Your task to perform on an android device: open a new tab in the chrome app Image 0: 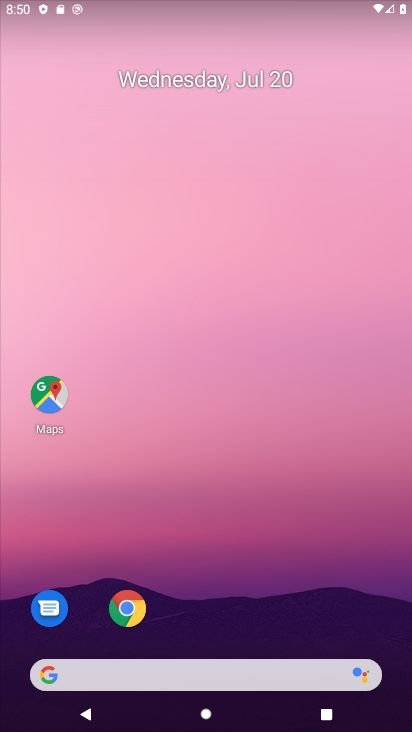
Step 0: click (221, 190)
Your task to perform on an android device: open a new tab in the chrome app Image 1: 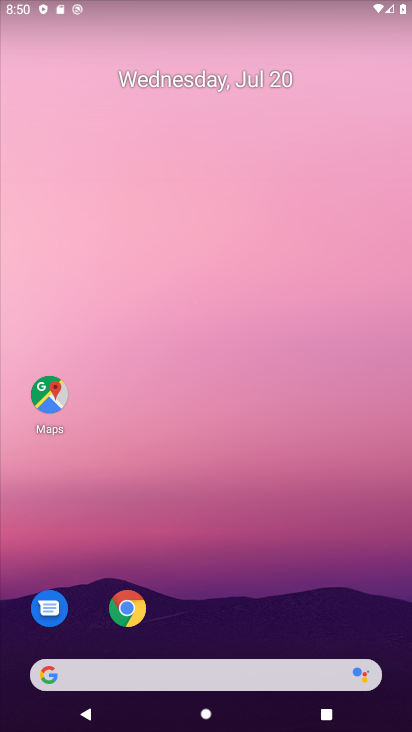
Step 1: drag from (180, 636) to (208, 150)
Your task to perform on an android device: open a new tab in the chrome app Image 2: 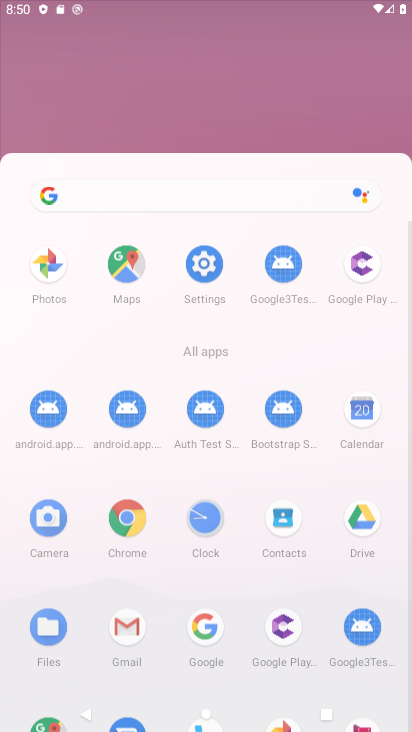
Step 2: drag from (194, 512) to (187, 127)
Your task to perform on an android device: open a new tab in the chrome app Image 3: 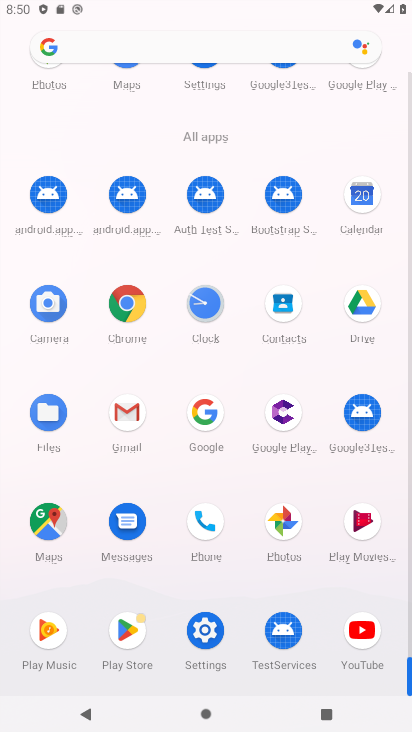
Step 3: click (135, 312)
Your task to perform on an android device: open a new tab in the chrome app Image 4: 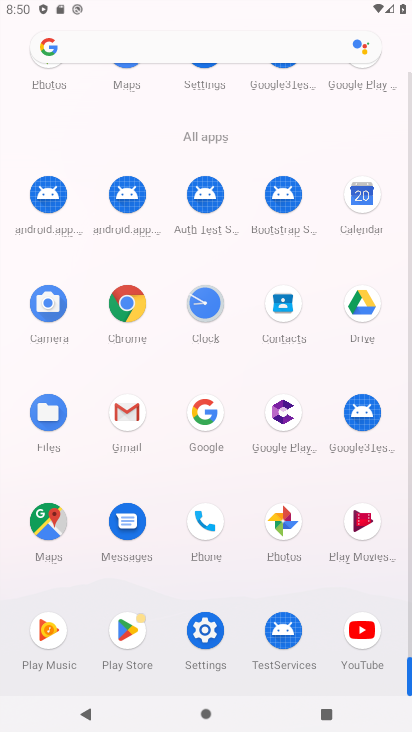
Step 4: click (136, 309)
Your task to perform on an android device: open a new tab in the chrome app Image 5: 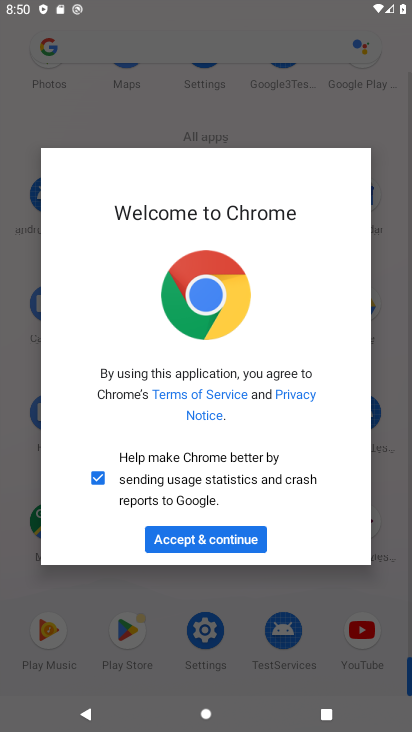
Step 5: click (221, 535)
Your task to perform on an android device: open a new tab in the chrome app Image 6: 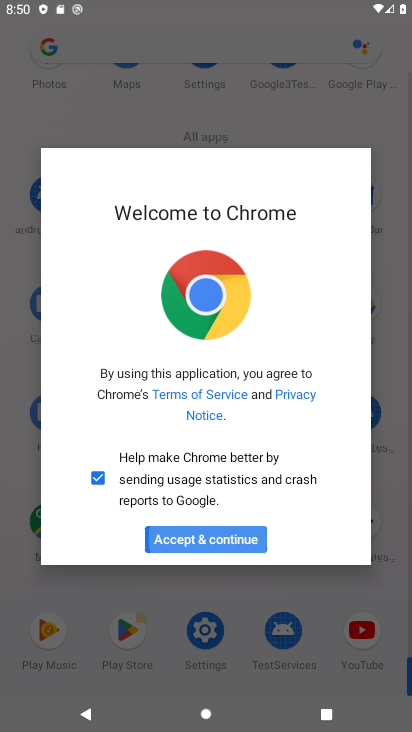
Step 6: click (223, 535)
Your task to perform on an android device: open a new tab in the chrome app Image 7: 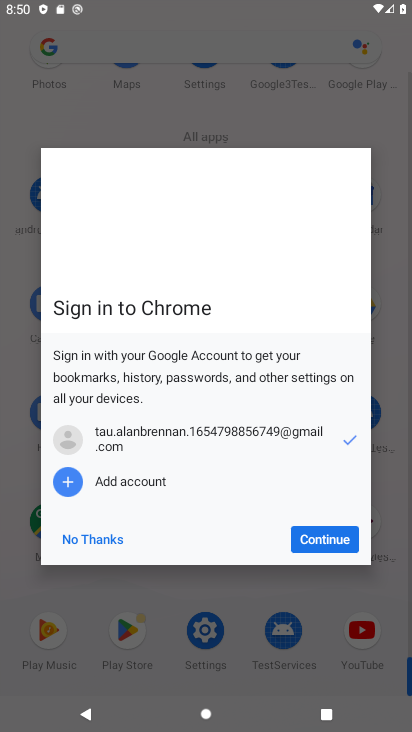
Step 7: click (223, 535)
Your task to perform on an android device: open a new tab in the chrome app Image 8: 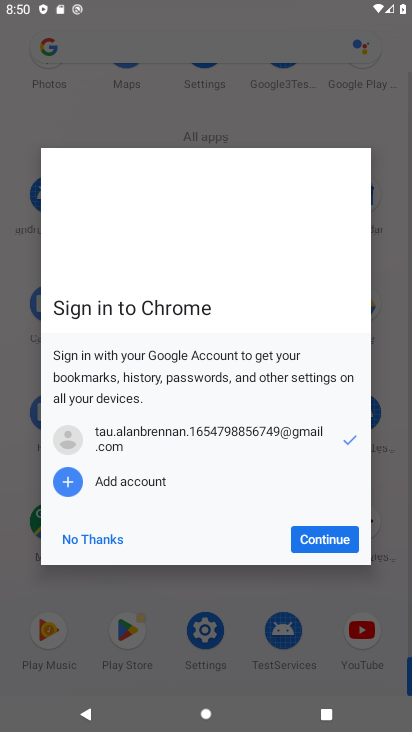
Step 8: click (324, 535)
Your task to perform on an android device: open a new tab in the chrome app Image 9: 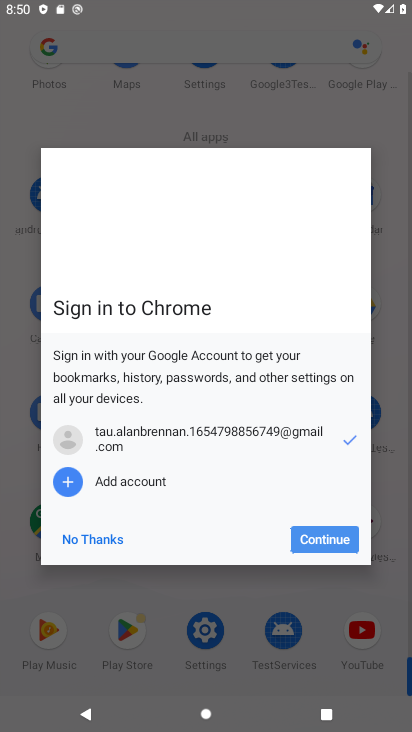
Step 9: click (324, 535)
Your task to perform on an android device: open a new tab in the chrome app Image 10: 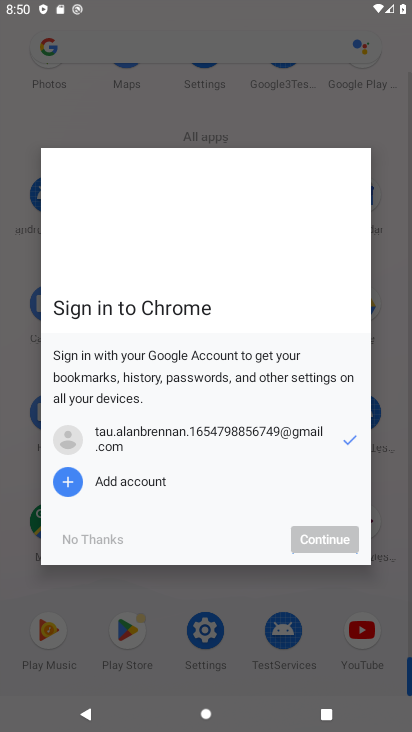
Step 10: click (325, 534)
Your task to perform on an android device: open a new tab in the chrome app Image 11: 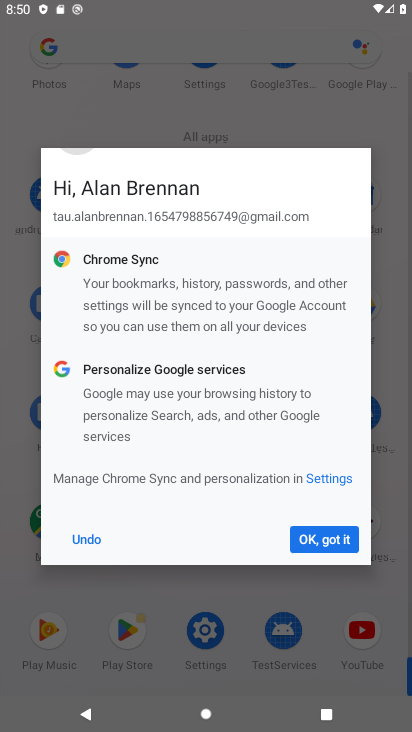
Step 11: click (83, 540)
Your task to perform on an android device: open a new tab in the chrome app Image 12: 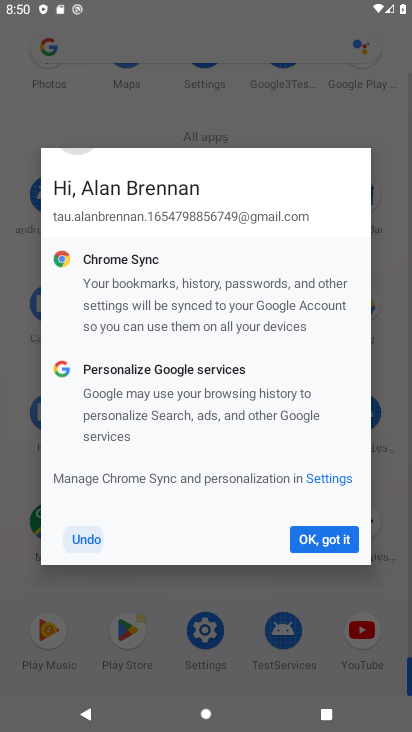
Step 12: click (84, 541)
Your task to perform on an android device: open a new tab in the chrome app Image 13: 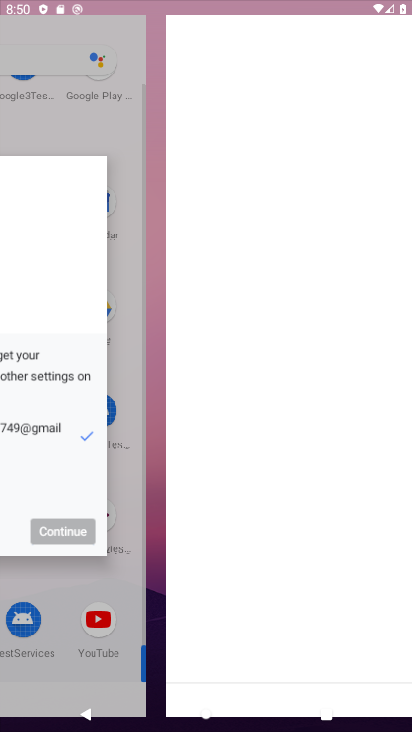
Step 13: click (83, 532)
Your task to perform on an android device: open a new tab in the chrome app Image 14: 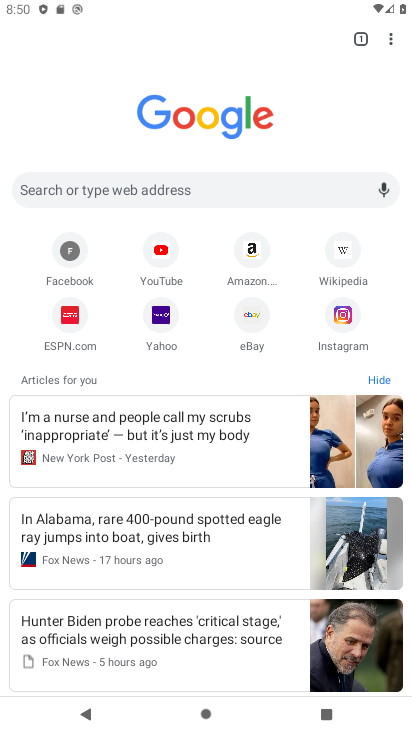
Step 14: drag from (392, 40) to (253, 84)
Your task to perform on an android device: open a new tab in the chrome app Image 15: 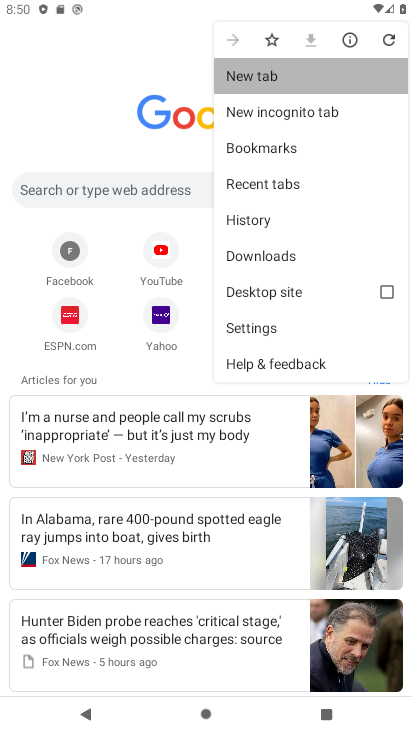
Step 15: click (253, 84)
Your task to perform on an android device: open a new tab in the chrome app Image 16: 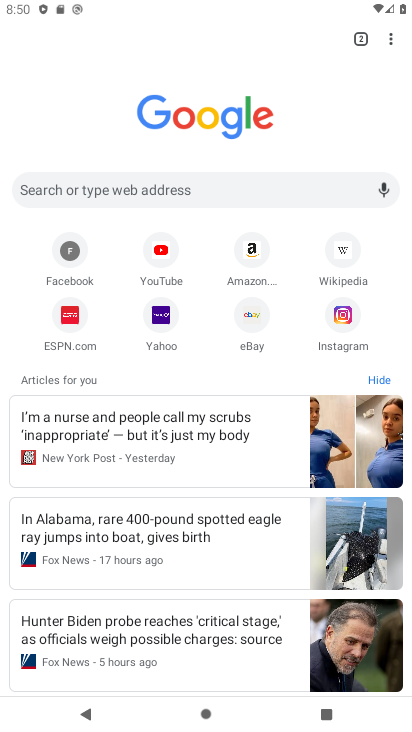
Step 16: task complete